Your task to perform on an android device: toggle pop-ups in chrome Image 0: 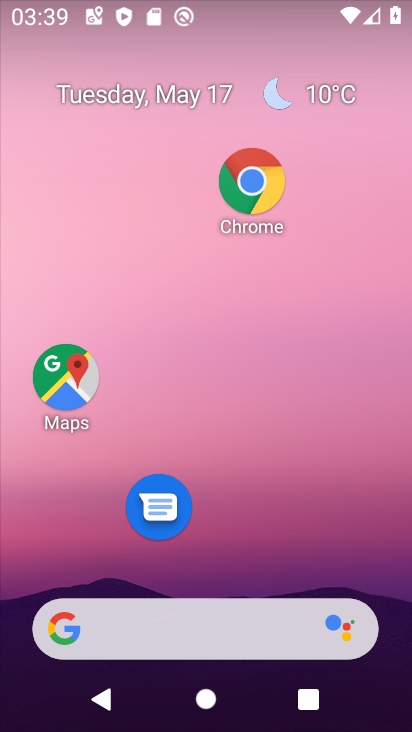
Step 0: click (261, 175)
Your task to perform on an android device: toggle pop-ups in chrome Image 1: 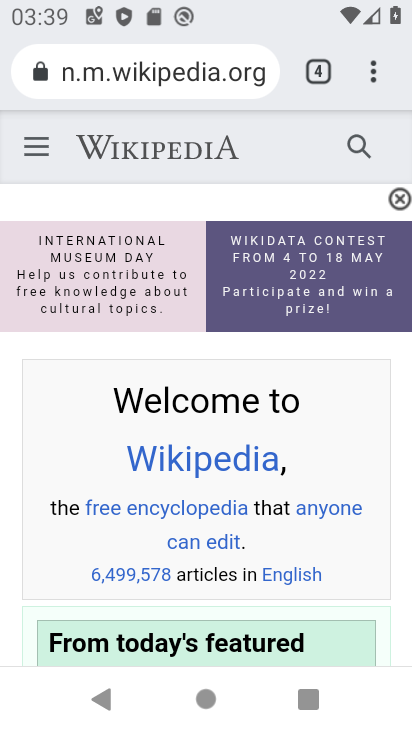
Step 1: click (369, 65)
Your task to perform on an android device: toggle pop-ups in chrome Image 2: 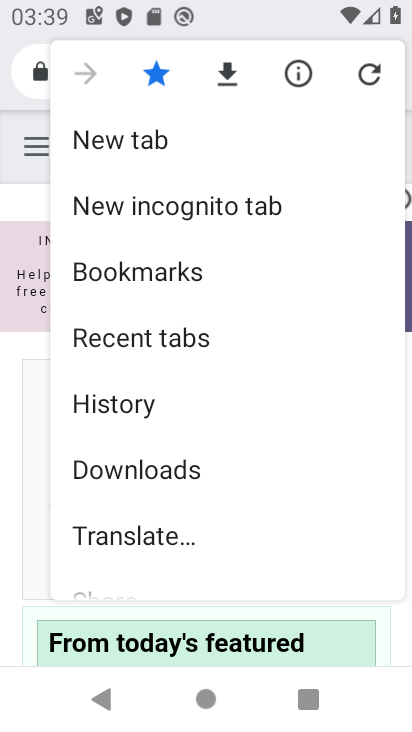
Step 2: drag from (114, 575) to (146, 186)
Your task to perform on an android device: toggle pop-ups in chrome Image 3: 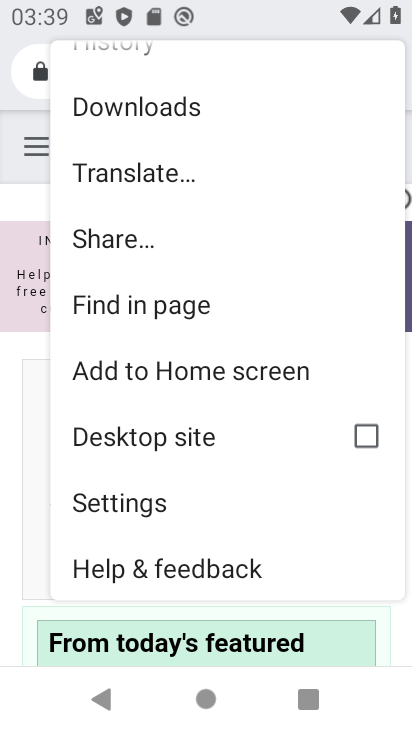
Step 3: click (165, 514)
Your task to perform on an android device: toggle pop-ups in chrome Image 4: 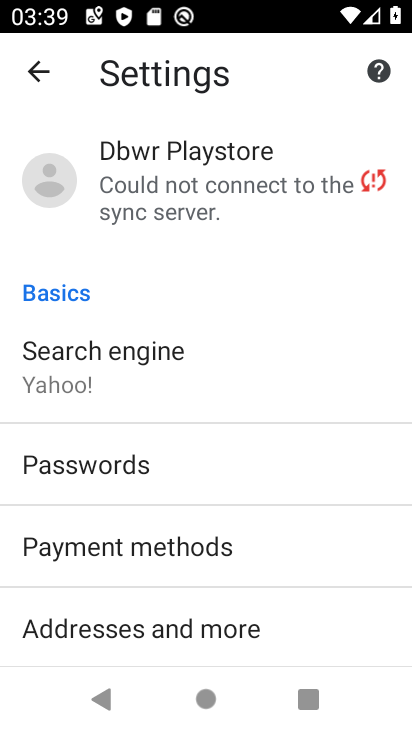
Step 4: drag from (119, 646) to (108, 204)
Your task to perform on an android device: toggle pop-ups in chrome Image 5: 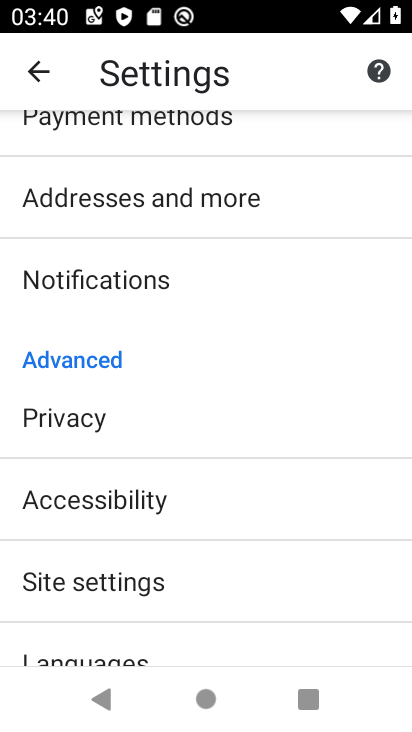
Step 5: click (168, 594)
Your task to perform on an android device: toggle pop-ups in chrome Image 6: 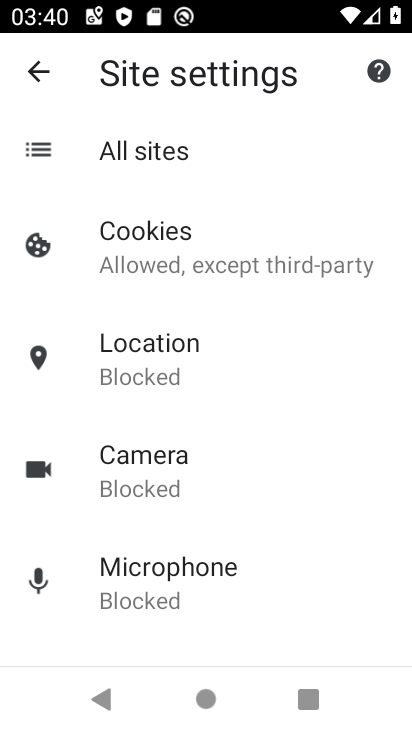
Step 6: drag from (87, 628) to (172, 121)
Your task to perform on an android device: toggle pop-ups in chrome Image 7: 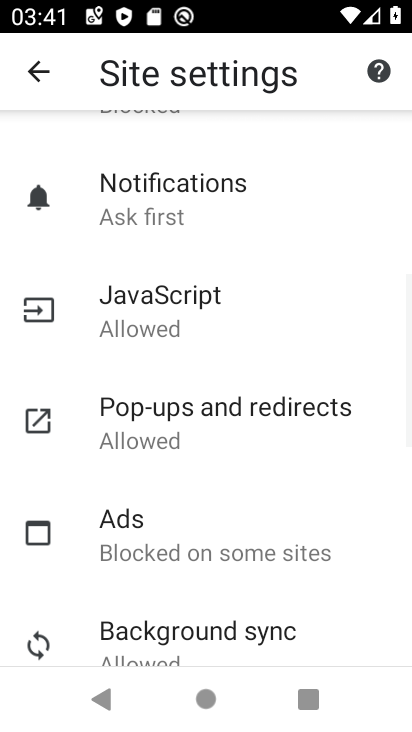
Step 7: click (287, 425)
Your task to perform on an android device: toggle pop-ups in chrome Image 8: 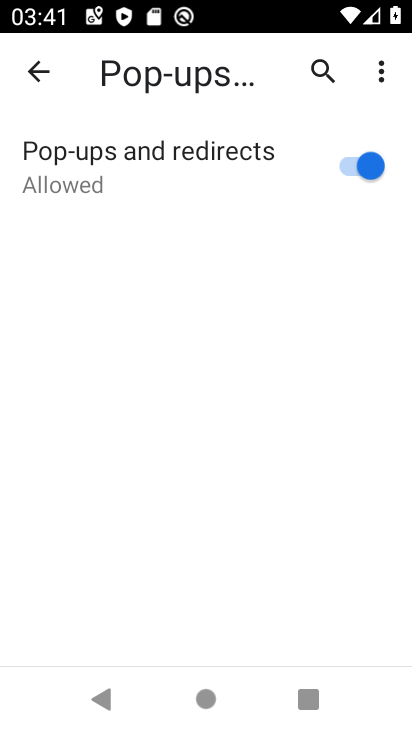
Step 8: click (369, 149)
Your task to perform on an android device: toggle pop-ups in chrome Image 9: 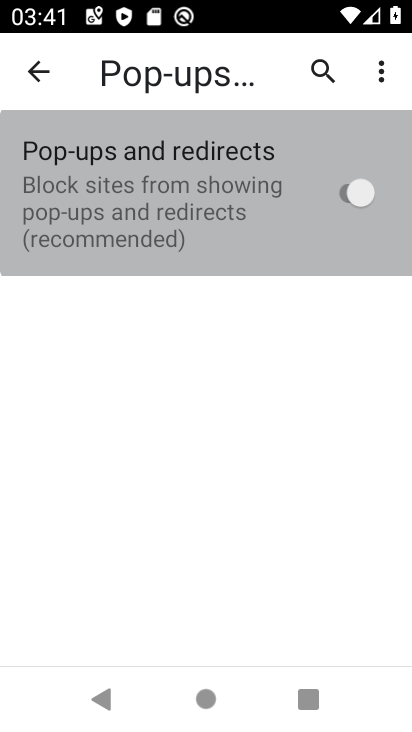
Step 9: click (369, 149)
Your task to perform on an android device: toggle pop-ups in chrome Image 10: 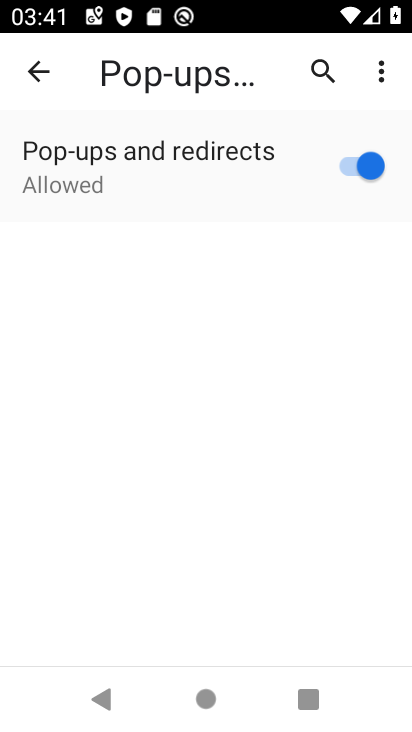
Step 10: click (369, 149)
Your task to perform on an android device: toggle pop-ups in chrome Image 11: 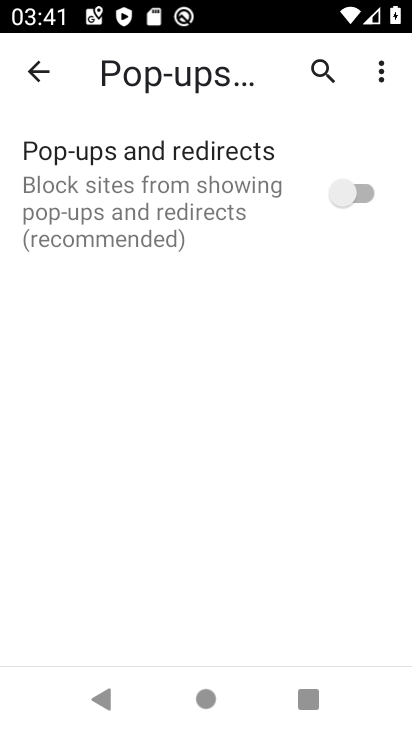
Step 11: task complete